Your task to perform on an android device: uninstall "Google Find My Device" Image 0: 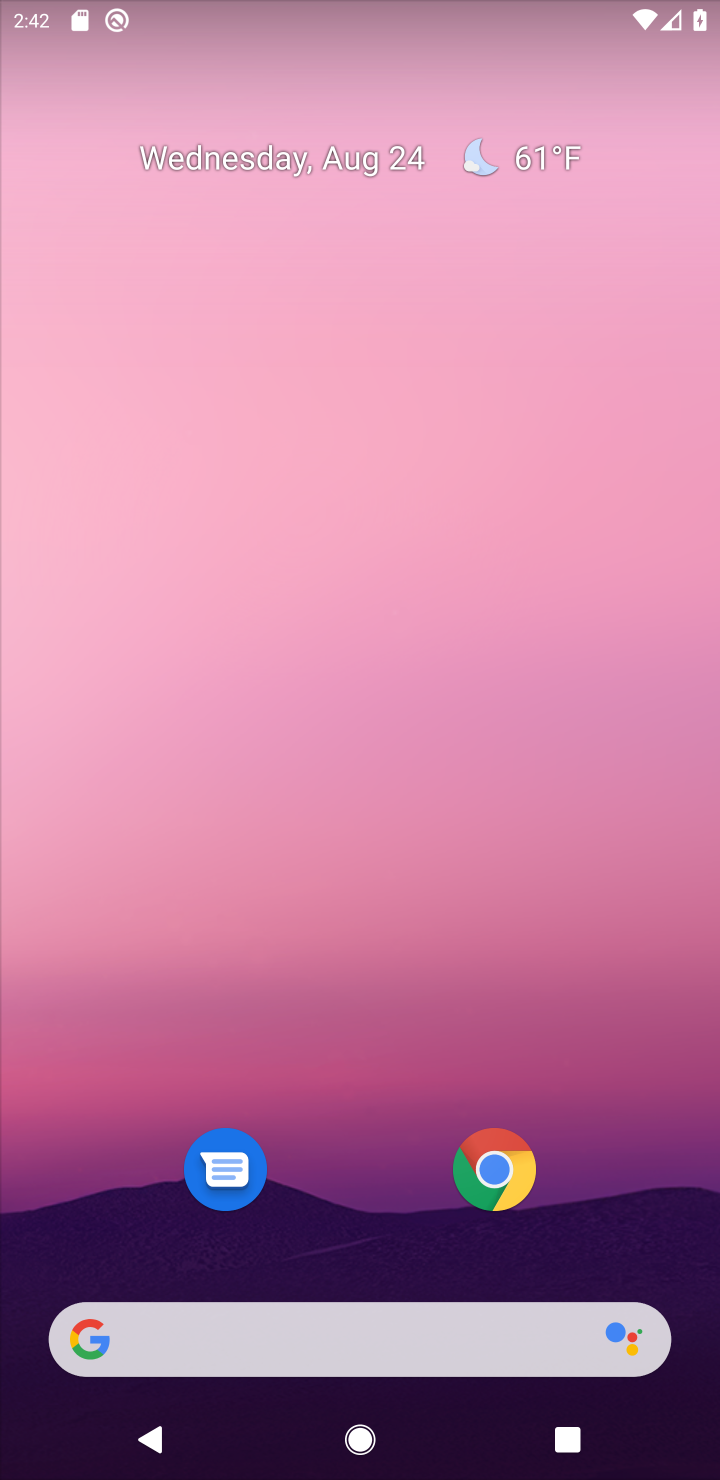
Step 0: drag from (422, 1244) to (306, 115)
Your task to perform on an android device: uninstall "Google Find My Device" Image 1: 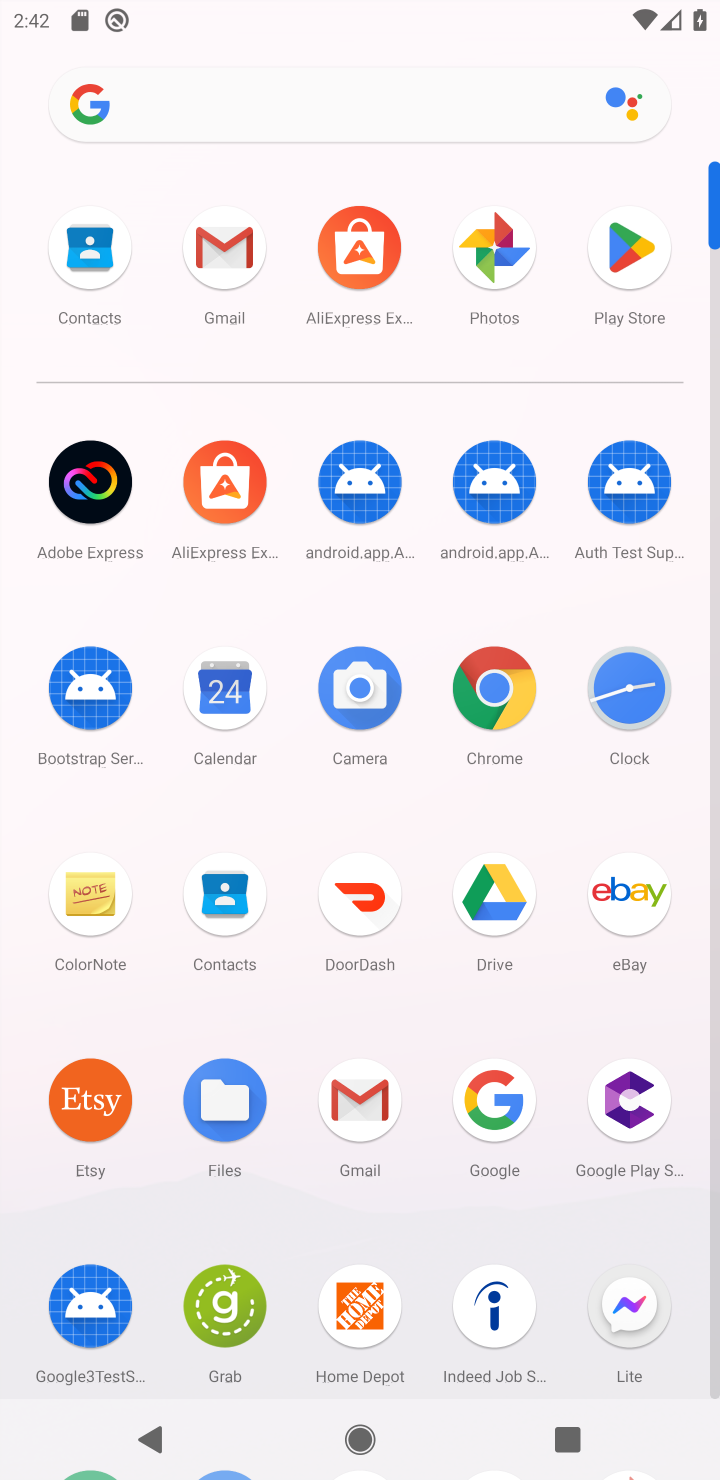
Step 1: click (624, 260)
Your task to perform on an android device: uninstall "Google Find My Device" Image 2: 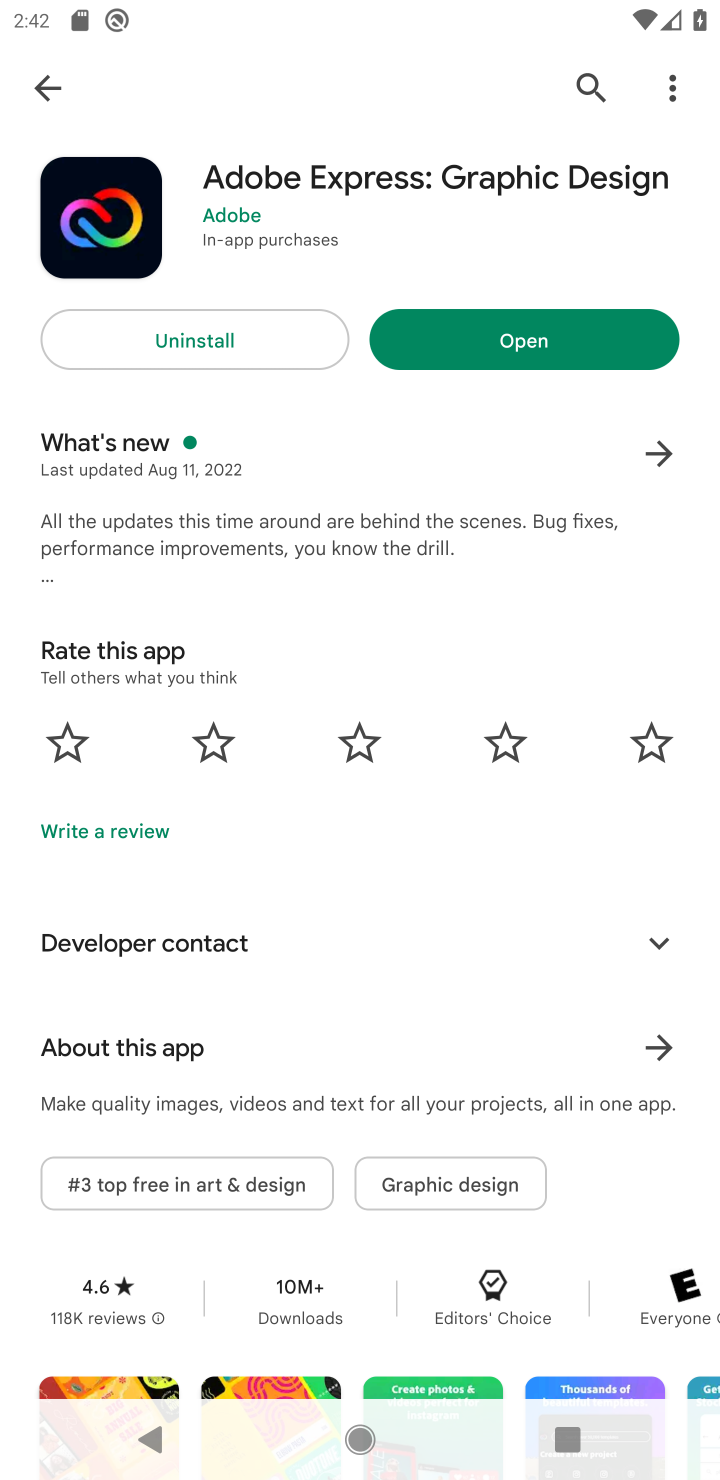
Step 2: click (36, 84)
Your task to perform on an android device: uninstall "Google Find My Device" Image 3: 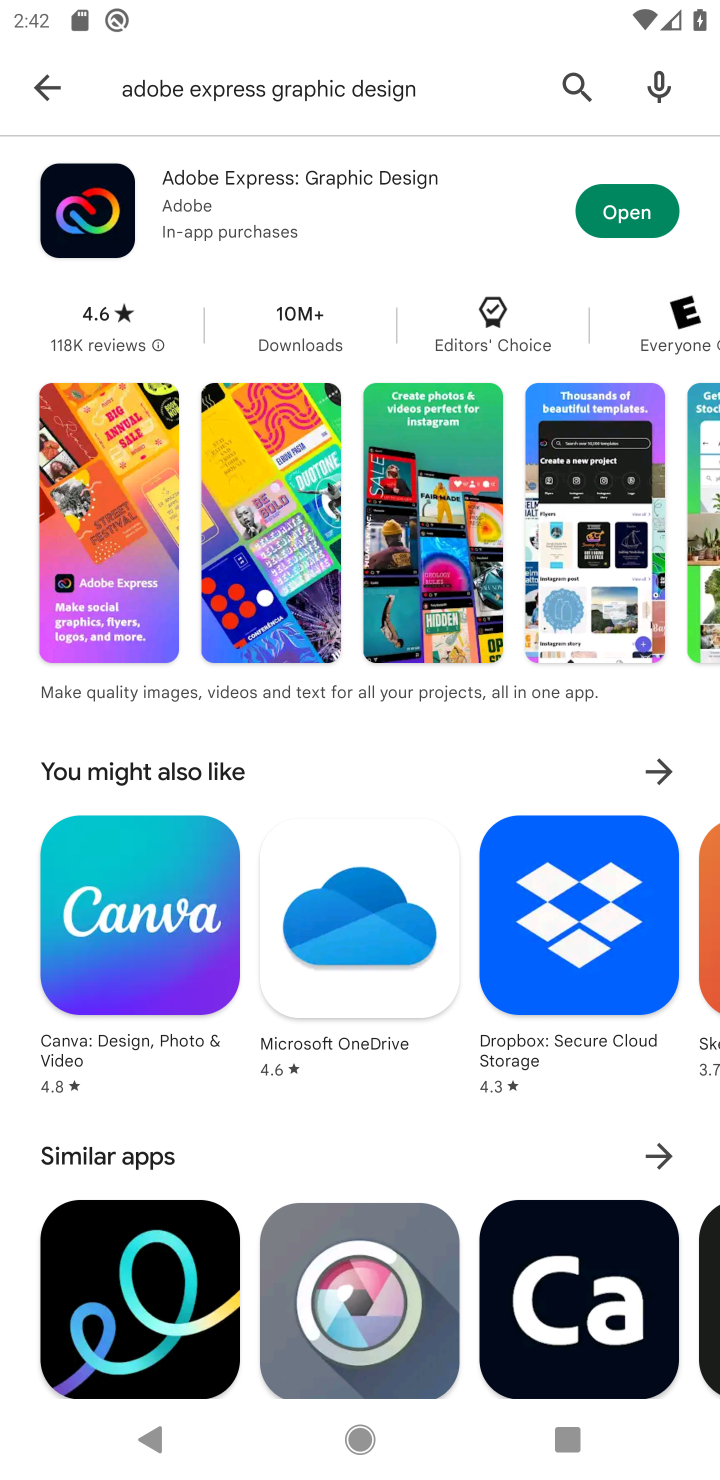
Step 3: click (56, 82)
Your task to perform on an android device: uninstall "Google Find My Device" Image 4: 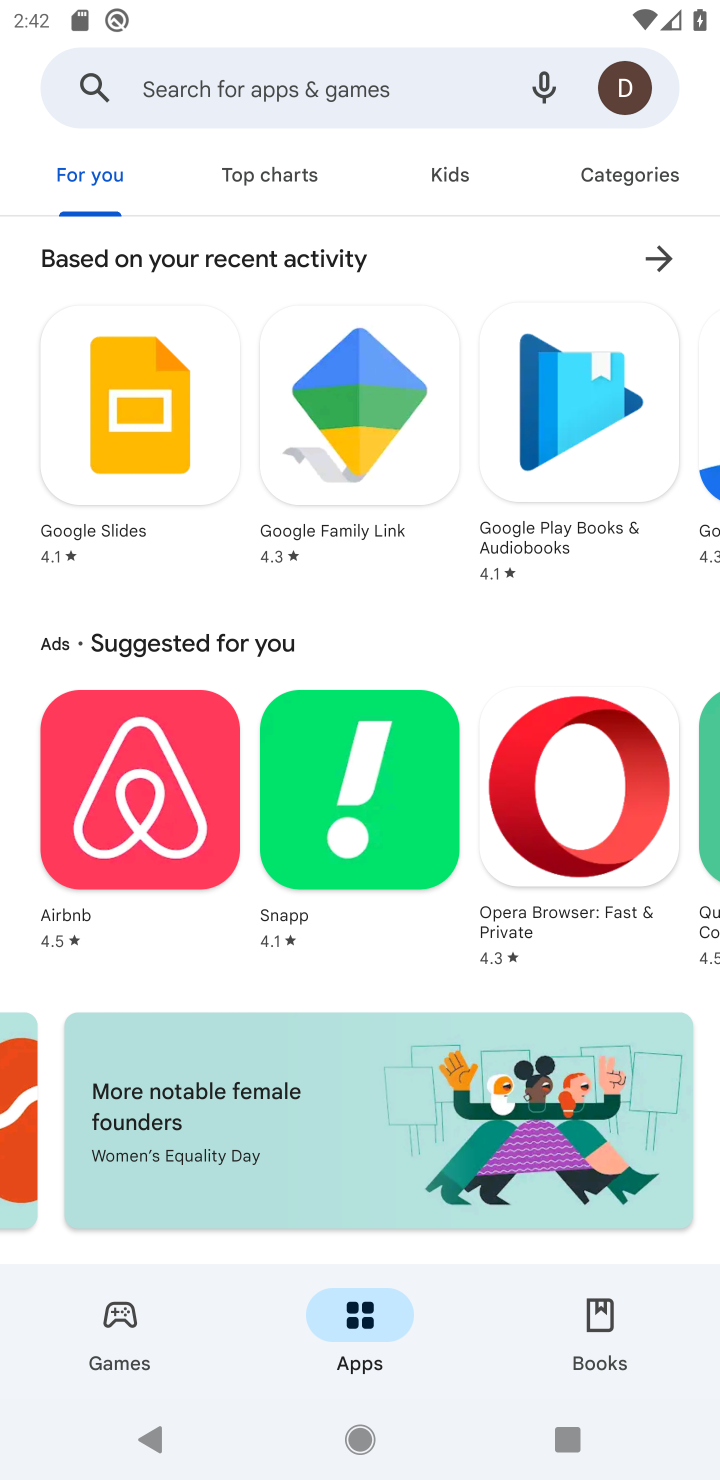
Step 4: click (181, 66)
Your task to perform on an android device: uninstall "Google Find My Device" Image 5: 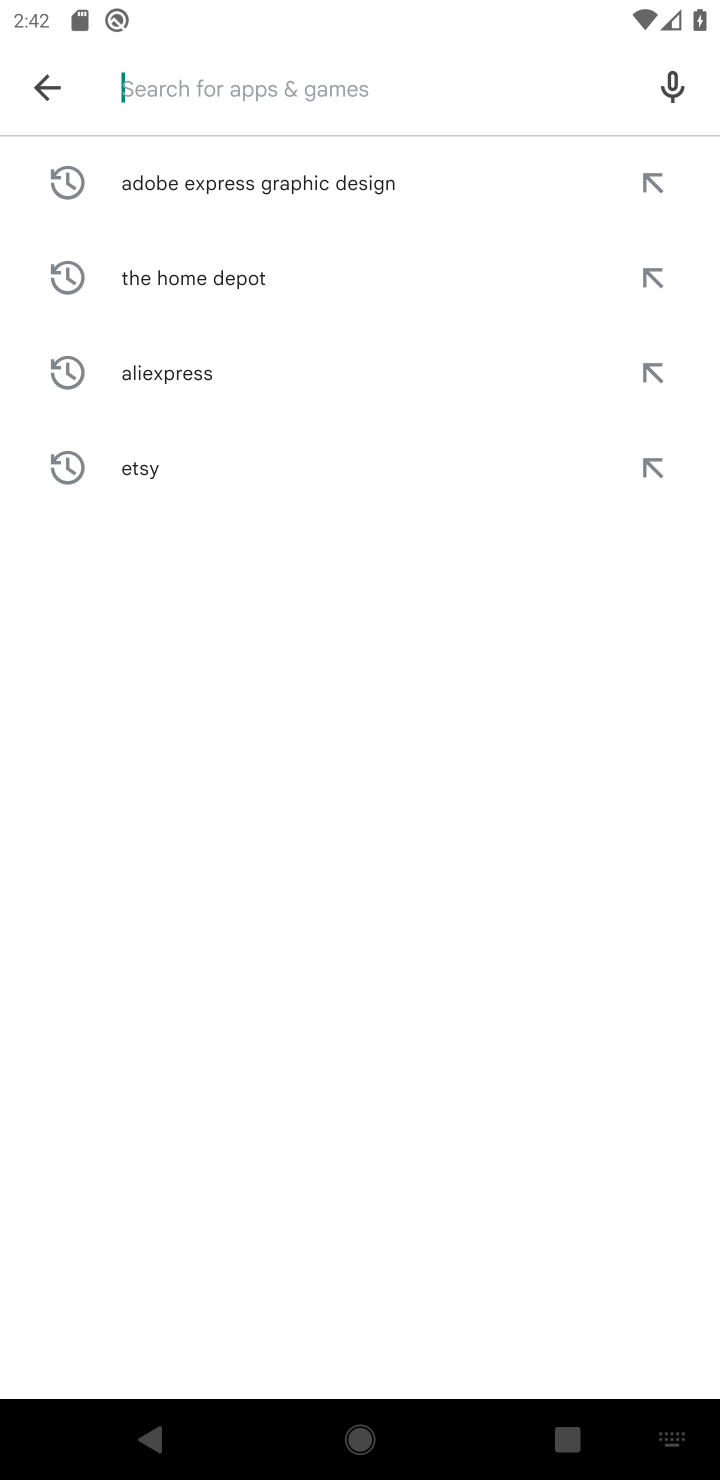
Step 5: type "Google Find My Device"
Your task to perform on an android device: uninstall "Google Find My Device" Image 6: 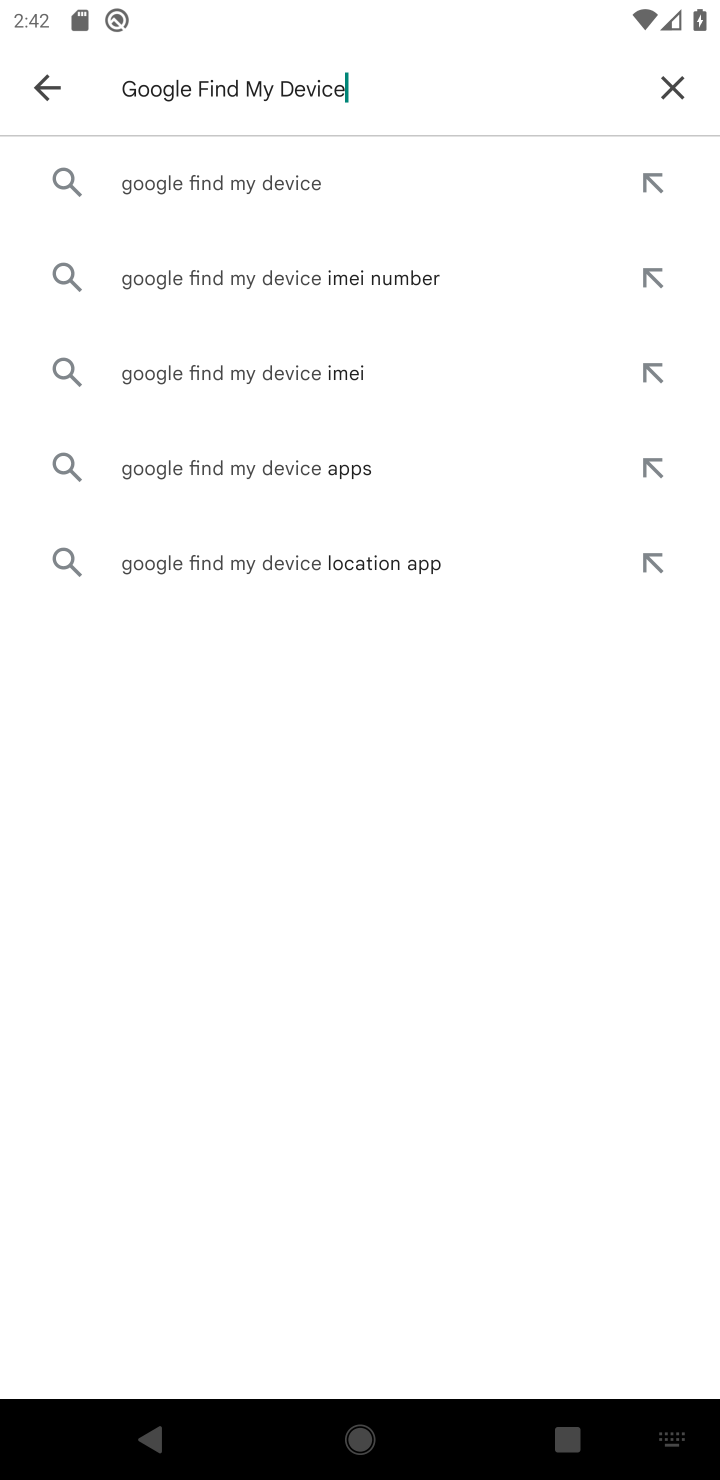
Step 6: click (217, 188)
Your task to perform on an android device: uninstall "Google Find My Device" Image 7: 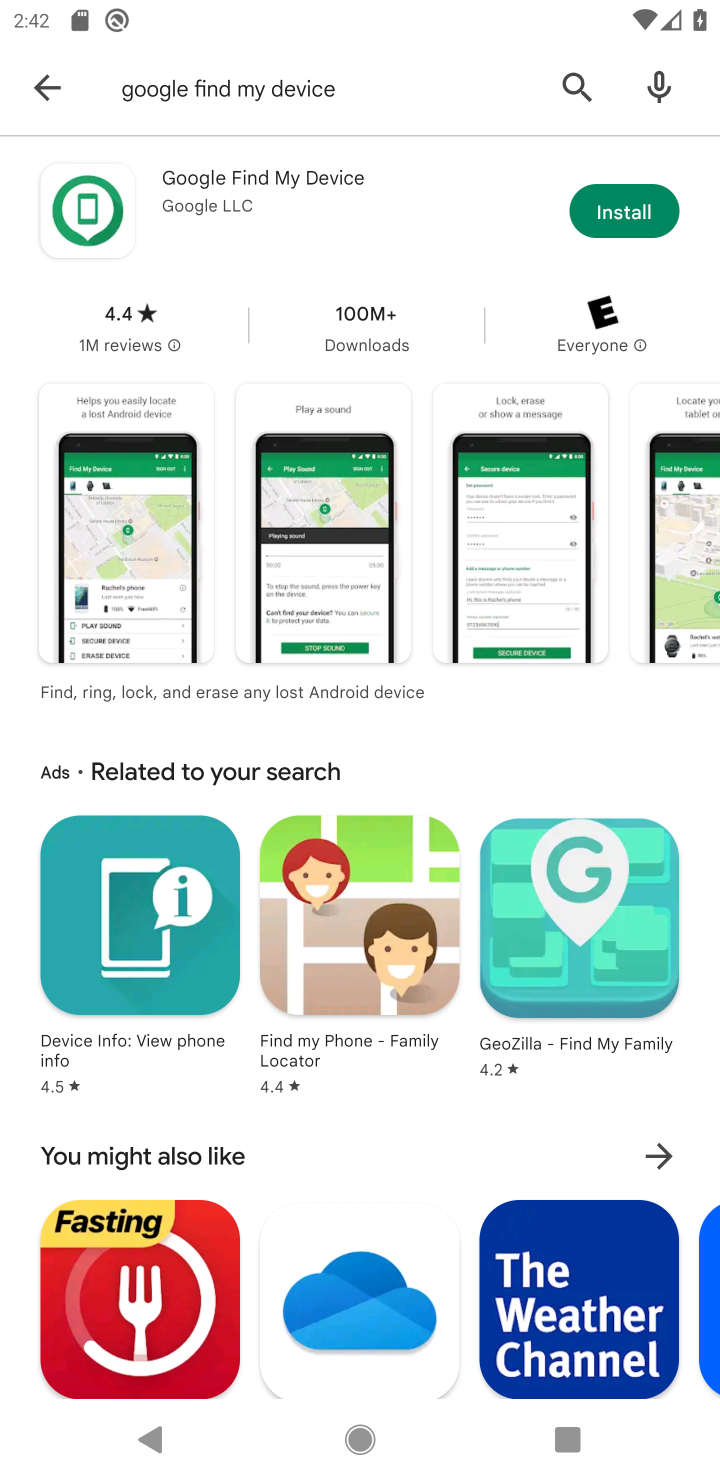
Step 7: task complete